Your task to perform on an android device: see sites visited before in the chrome app Image 0: 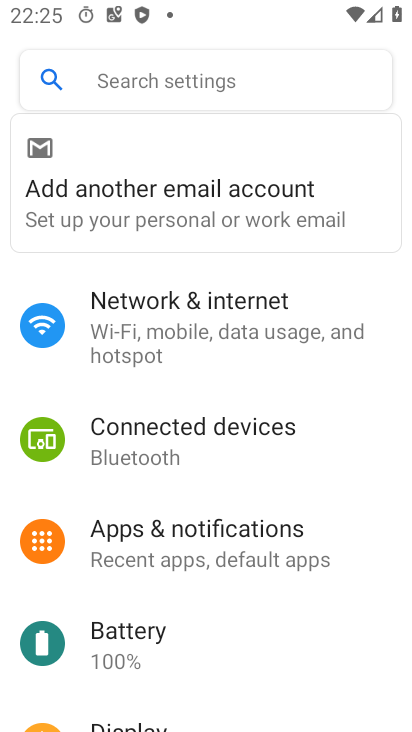
Step 0: press home button
Your task to perform on an android device: see sites visited before in the chrome app Image 1: 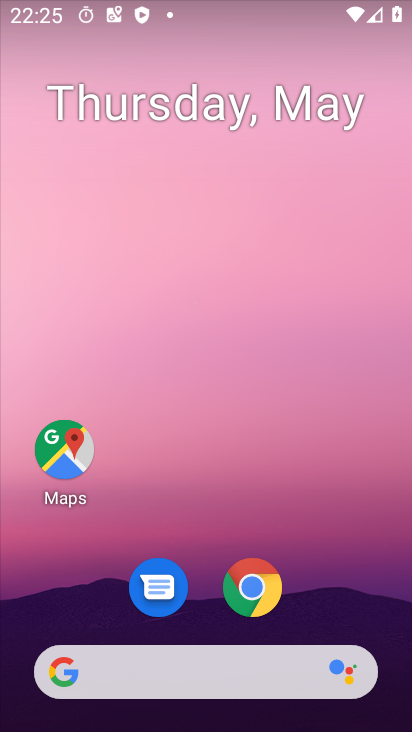
Step 1: click (252, 585)
Your task to perform on an android device: see sites visited before in the chrome app Image 2: 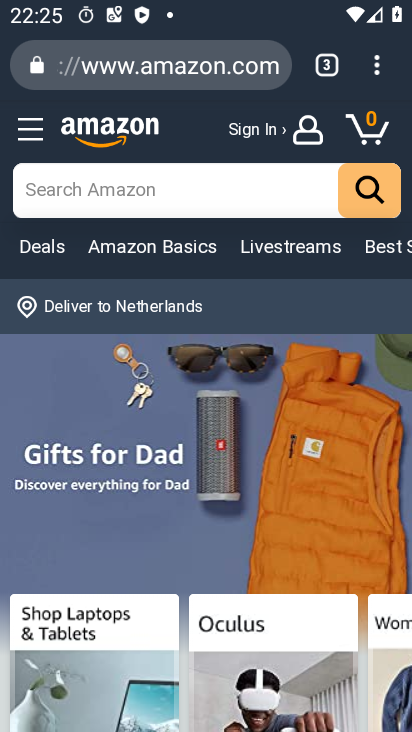
Step 2: click (377, 65)
Your task to perform on an android device: see sites visited before in the chrome app Image 3: 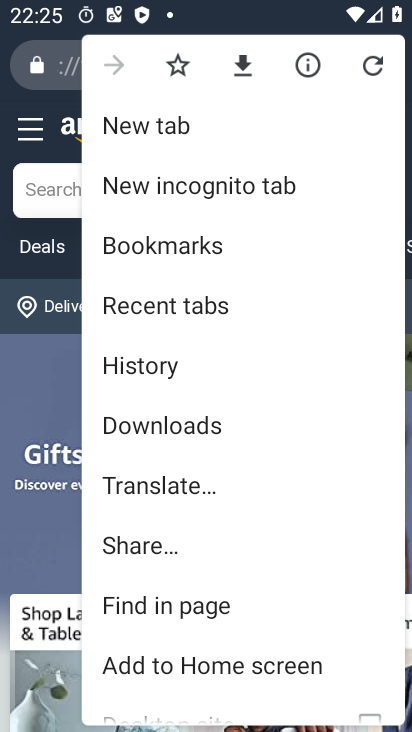
Step 3: click (170, 366)
Your task to perform on an android device: see sites visited before in the chrome app Image 4: 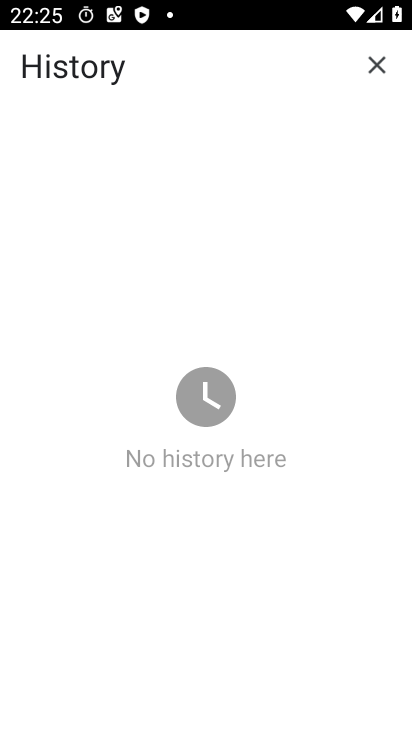
Step 4: task complete